Your task to perform on an android device: Open calendar and show me the second week of next month Image 0: 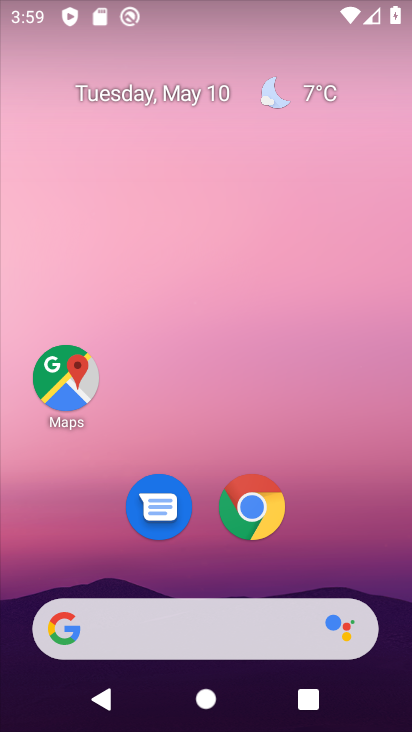
Step 0: drag from (209, 593) to (397, 53)
Your task to perform on an android device: Open calendar and show me the second week of next month Image 1: 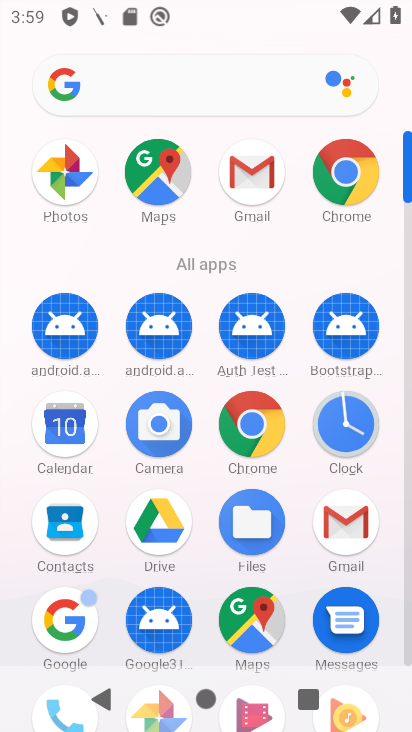
Step 1: click (54, 427)
Your task to perform on an android device: Open calendar and show me the second week of next month Image 2: 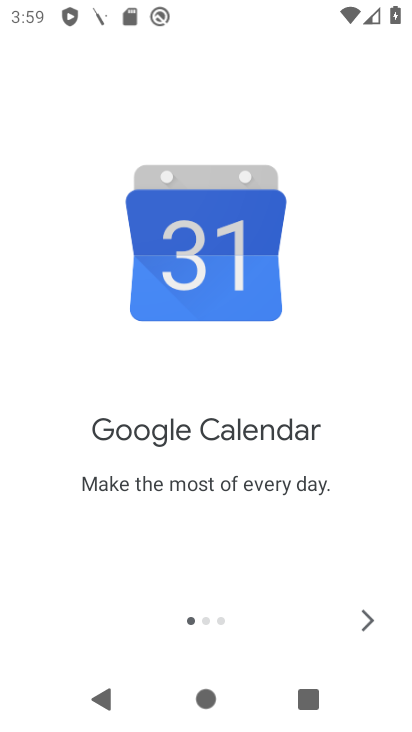
Step 2: click (371, 622)
Your task to perform on an android device: Open calendar and show me the second week of next month Image 3: 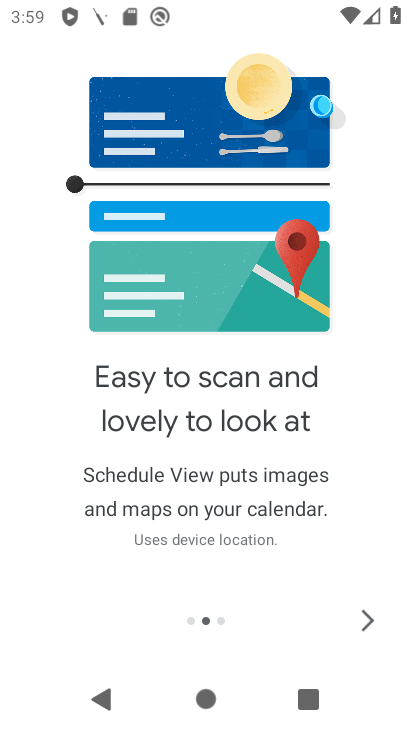
Step 3: click (371, 622)
Your task to perform on an android device: Open calendar and show me the second week of next month Image 4: 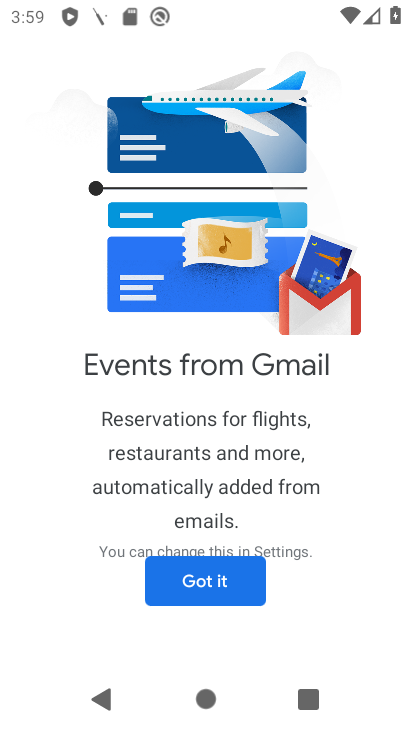
Step 4: click (188, 576)
Your task to perform on an android device: Open calendar and show me the second week of next month Image 5: 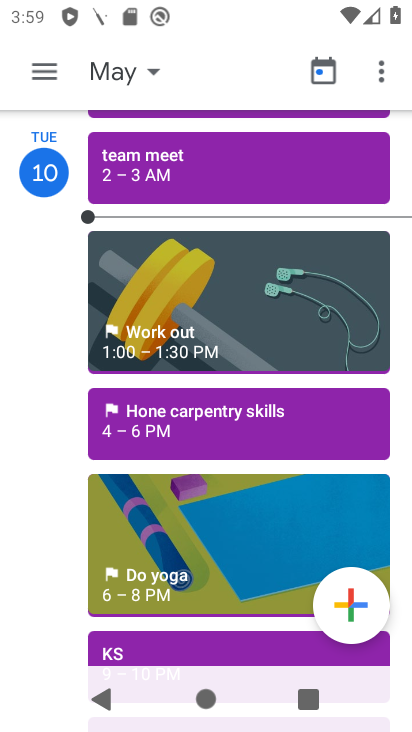
Step 5: click (38, 82)
Your task to perform on an android device: Open calendar and show me the second week of next month Image 6: 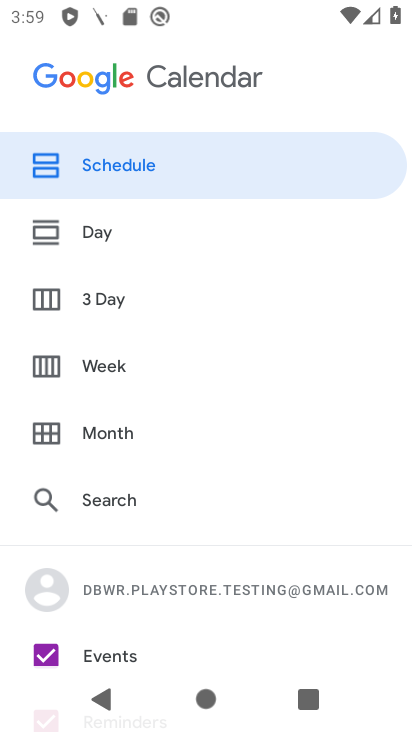
Step 6: click (113, 430)
Your task to perform on an android device: Open calendar and show me the second week of next month Image 7: 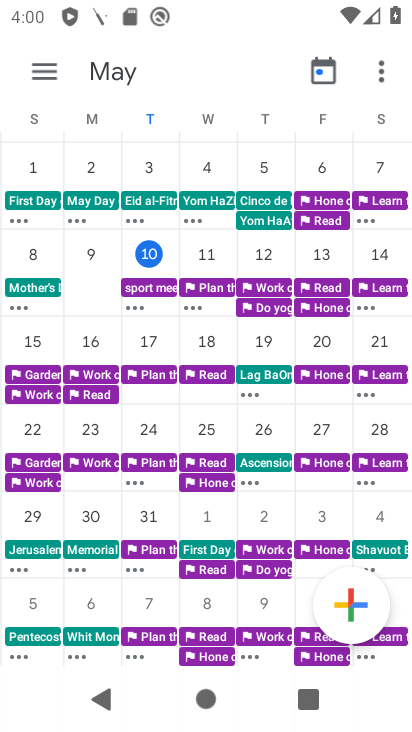
Step 7: drag from (339, 430) to (38, 504)
Your task to perform on an android device: Open calendar and show me the second week of next month Image 8: 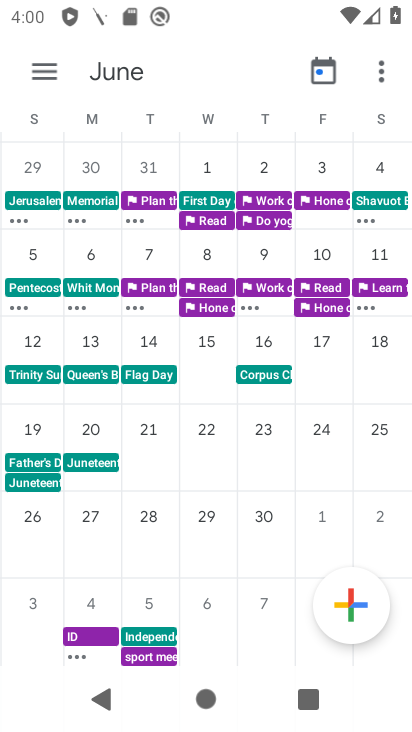
Step 8: click (84, 349)
Your task to perform on an android device: Open calendar and show me the second week of next month Image 9: 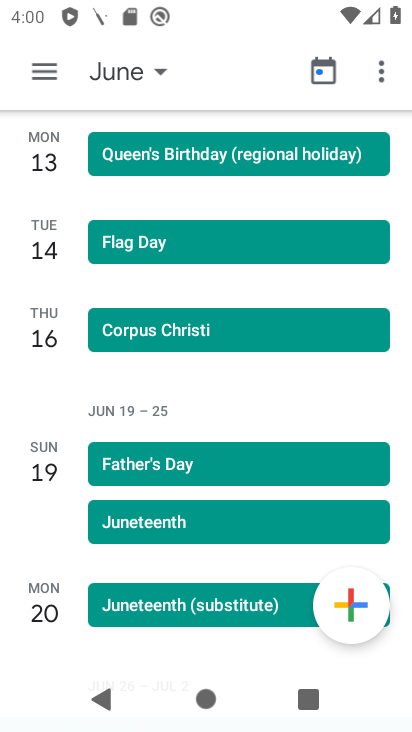
Step 9: task complete